Your task to perform on an android device: turn off data saver in the chrome app Image 0: 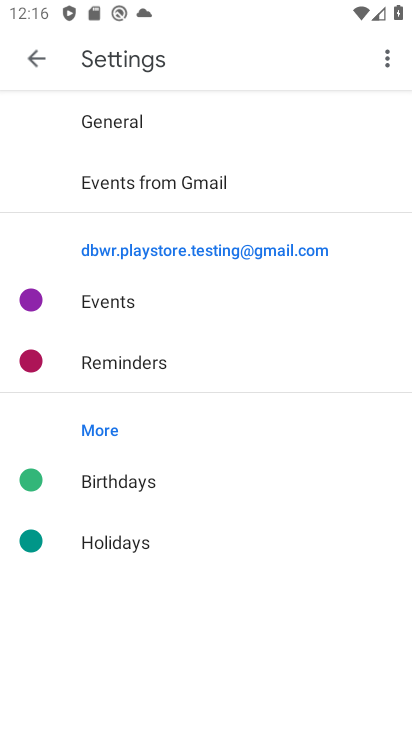
Step 0: press home button
Your task to perform on an android device: turn off data saver in the chrome app Image 1: 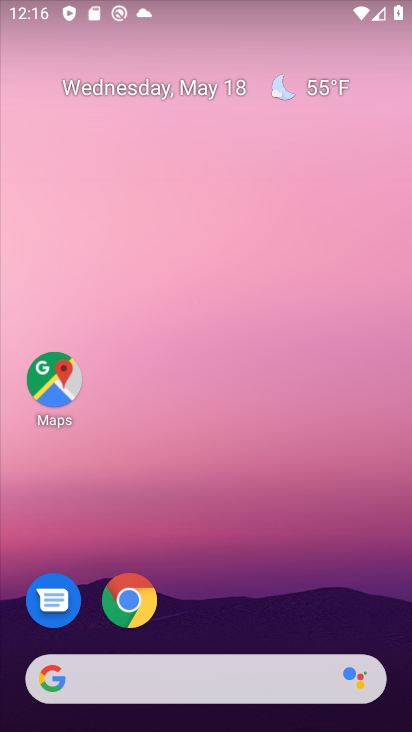
Step 1: click (138, 613)
Your task to perform on an android device: turn off data saver in the chrome app Image 2: 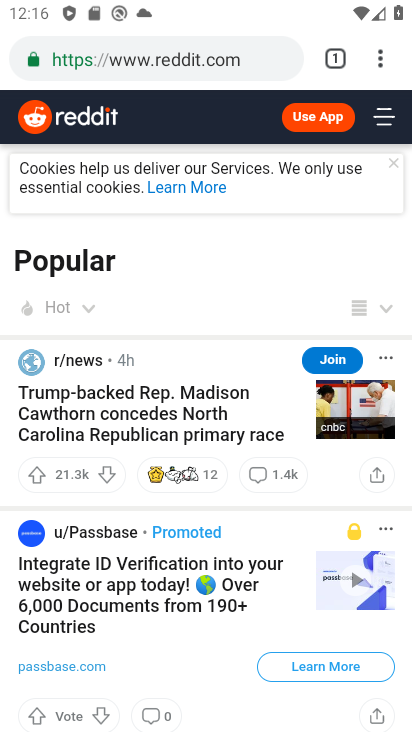
Step 2: drag from (383, 49) to (199, 631)
Your task to perform on an android device: turn off data saver in the chrome app Image 3: 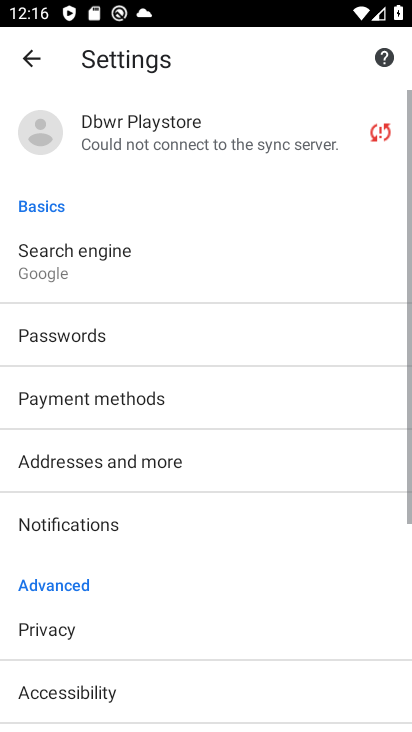
Step 3: drag from (146, 646) to (115, 114)
Your task to perform on an android device: turn off data saver in the chrome app Image 4: 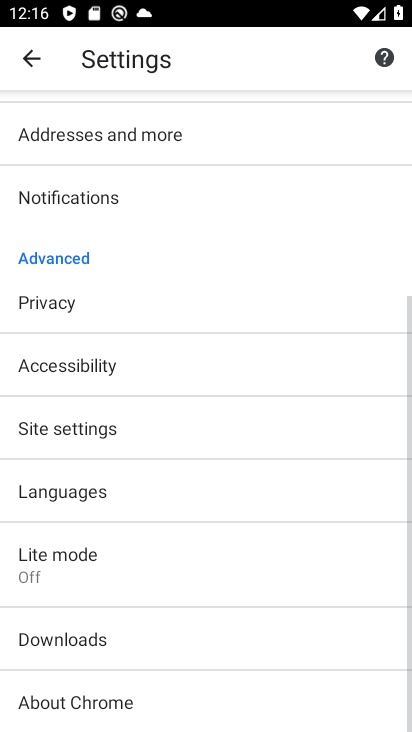
Step 4: click (101, 558)
Your task to perform on an android device: turn off data saver in the chrome app Image 5: 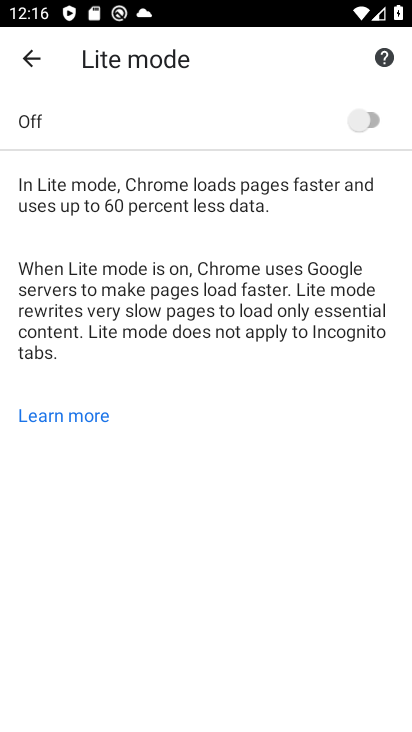
Step 5: task complete